Your task to perform on an android device: Open Google Maps Image 0: 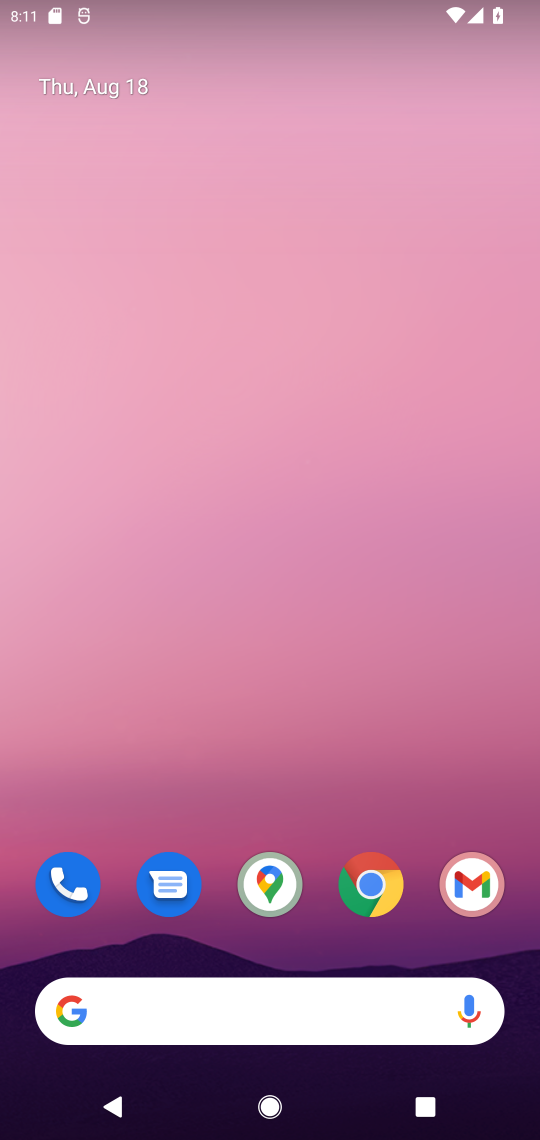
Step 0: click (279, 895)
Your task to perform on an android device: Open Google Maps Image 1: 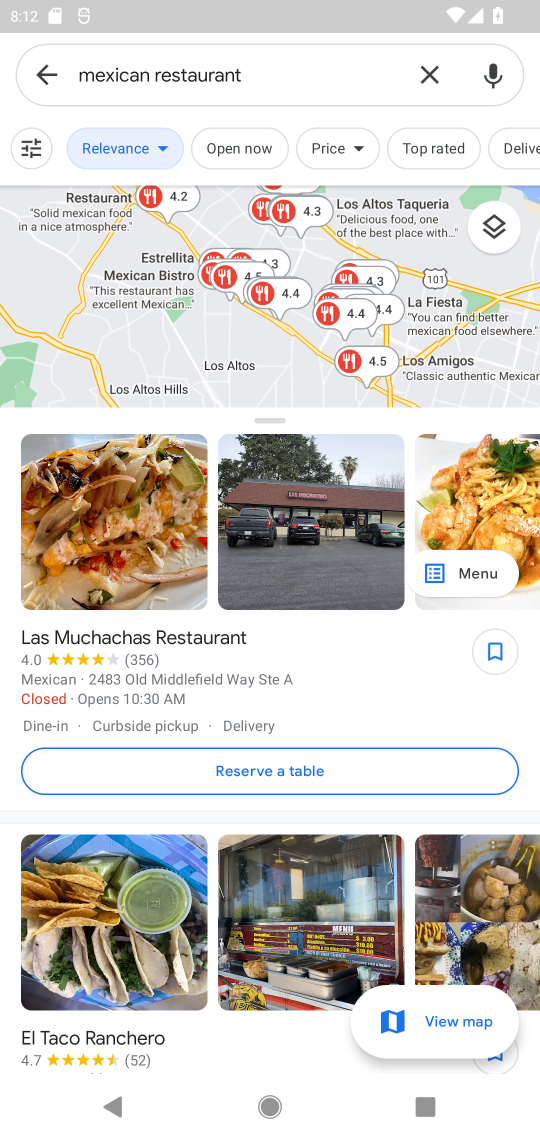
Step 1: task complete